Your task to perform on an android device: change notification settings in the gmail app Image 0: 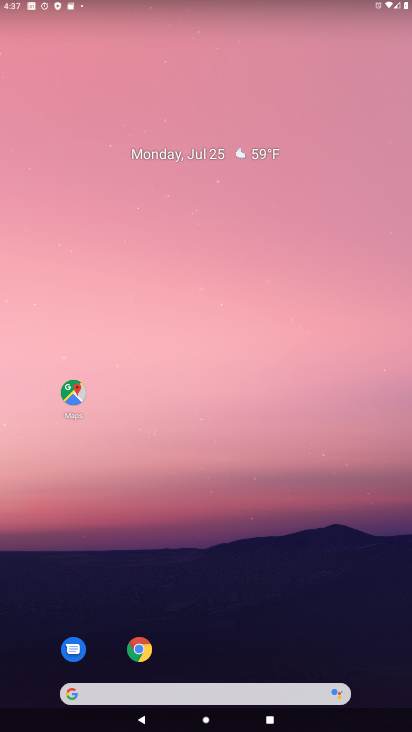
Step 0: drag from (282, 639) to (213, 192)
Your task to perform on an android device: change notification settings in the gmail app Image 1: 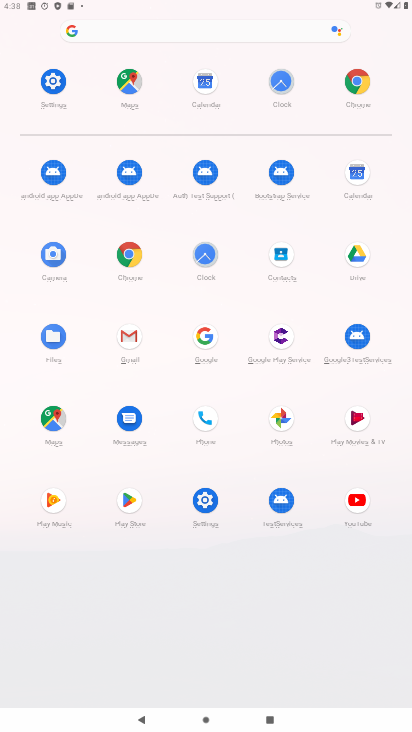
Step 1: click (137, 346)
Your task to perform on an android device: change notification settings in the gmail app Image 2: 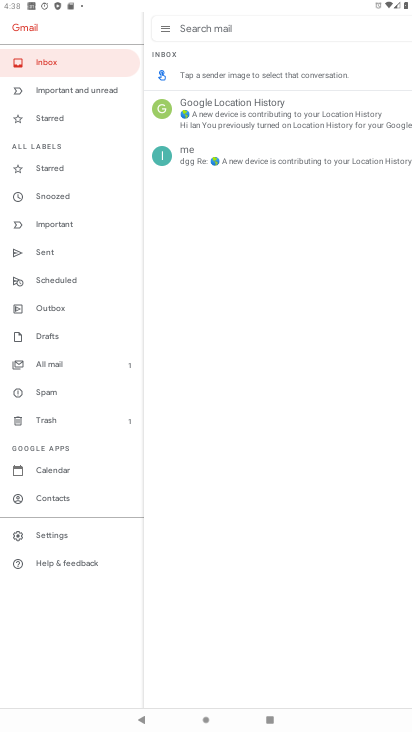
Step 2: click (78, 541)
Your task to perform on an android device: change notification settings in the gmail app Image 3: 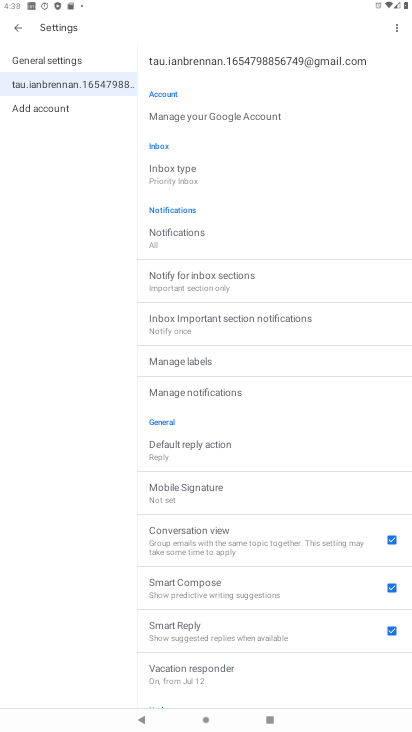
Step 3: click (218, 387)
Your task to perform on an android device: change notification settings in the gmail app Image 4: 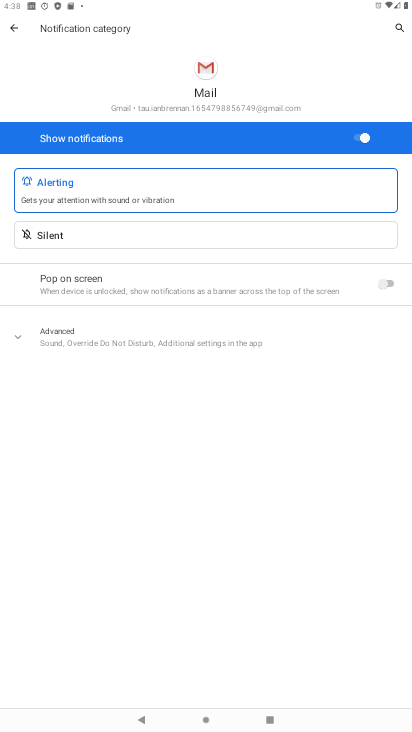
Step 4: click (222, 237)
Your task to perform on an android device: change notification settings in the gmail app Image 5: 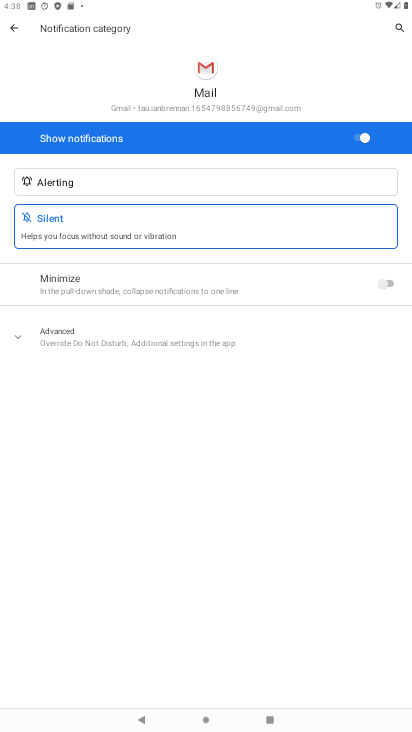
Step 5: click (363, 269)
Your task to perform on an android device: change notification settings in the gmail app Image 6: 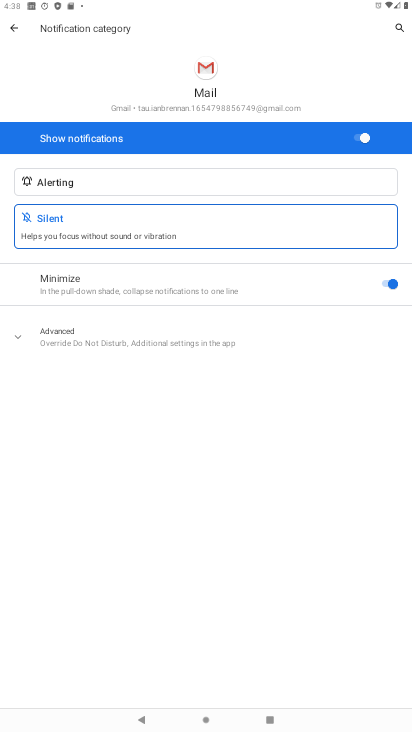
Step 6: task complete